Your task to perform on an android device: choose inbox layout in the gmail app Image 0: 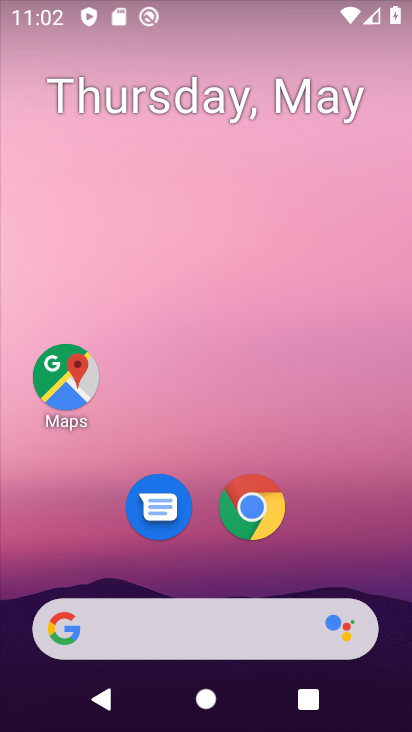
Step 0: drag from (217, 615) to (259, 155)
Your task to perform on an android device: choose inbox layout in the gmail app Image 1: 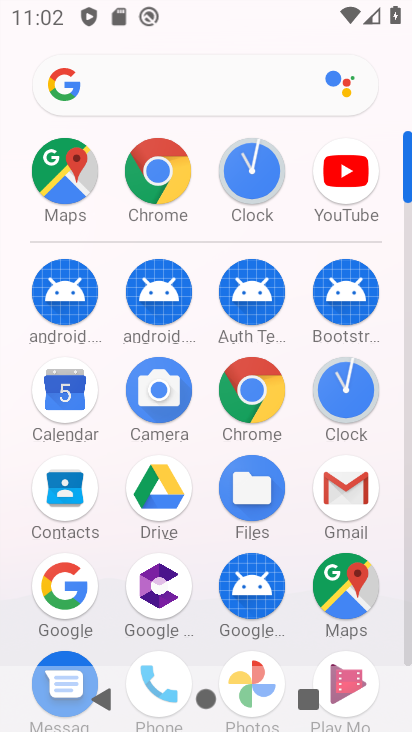
Step 1: click (347, 508)
Your task to perform on an android device: choose inbox layout in the gmail app Image 2: 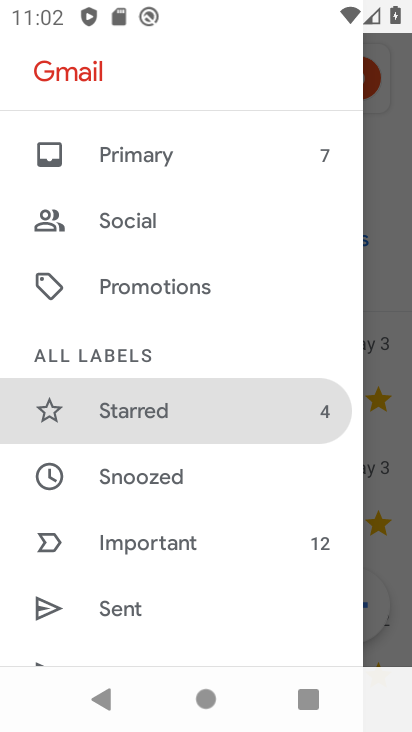
Step 2: drag from (191, 454) to (202, 25)
Your task to perform on an android device: choose inbox layout in the gmail app Image 3: 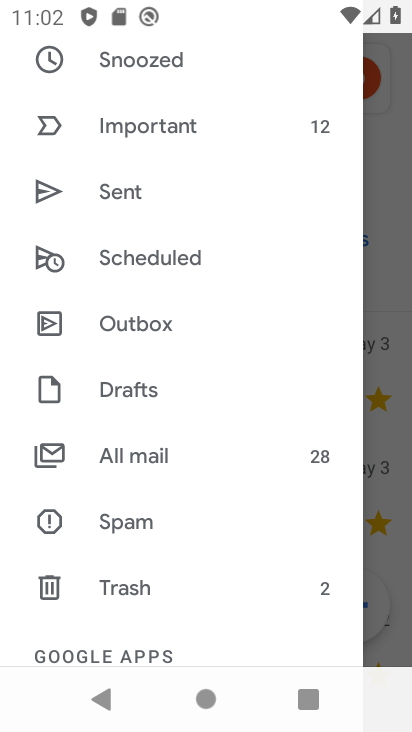
Step 3: drag from (151, 566) to (149, 15)
Your task to perform on an android device: choose inbox layout in the gmail app Image 4: 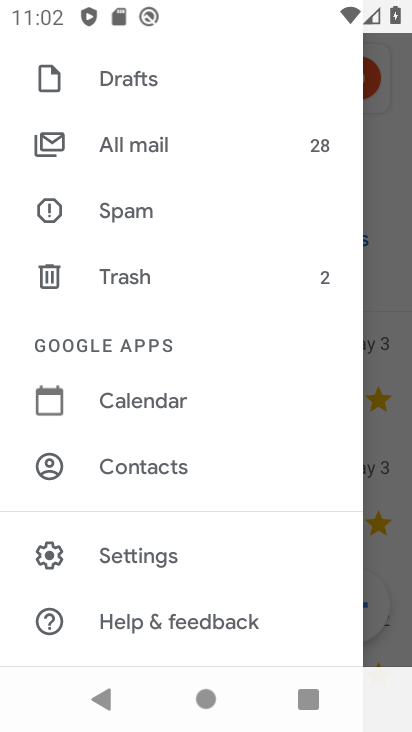
Step 4: click (117, 563)
Your task to perform on an android device: choose inbox layout in the gmail app Image 5: 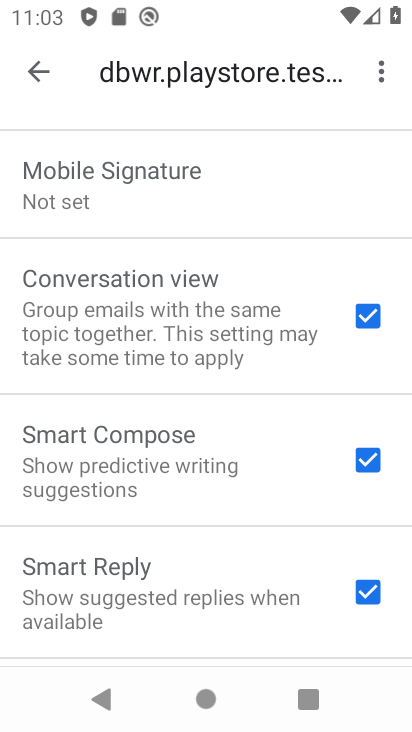
Step 5: task complete